Your task to perform on an android device: Go to Yahoo.com Image 0: 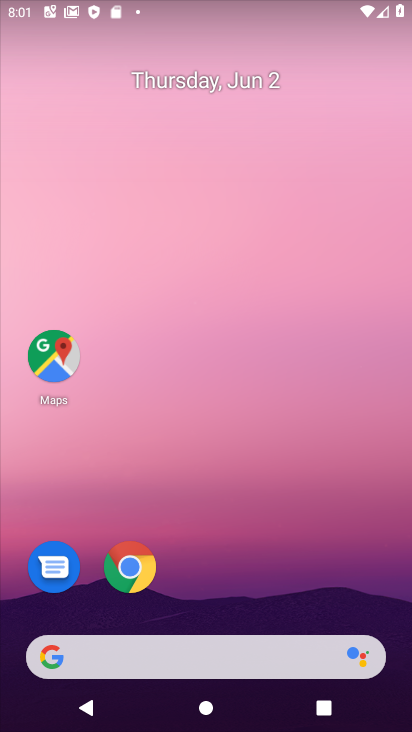
Step 0: click (127, 566)
Your task to perform on an android device: Go to Yahoo.com Image 1: 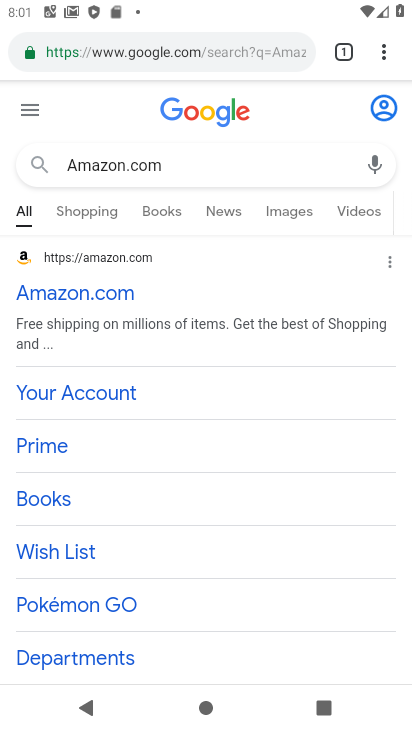
Step 1: click (236, 47)
Your task to perform on an android device: Go to Yahoo.com Image 2: 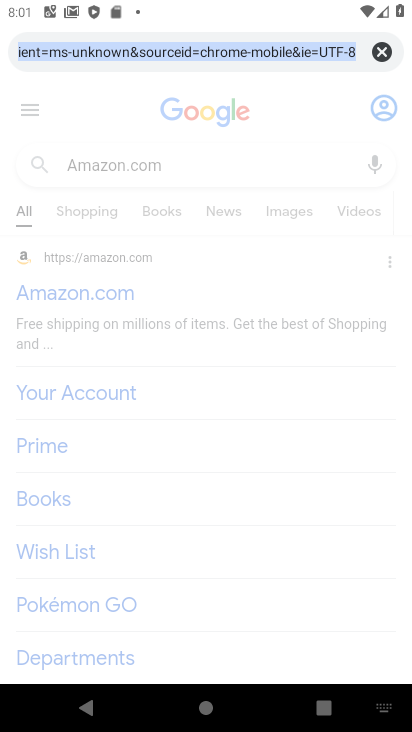
Step 2: click (386, 48)
Your task to perform on an android device: Go to Yahoo.com Image 3: 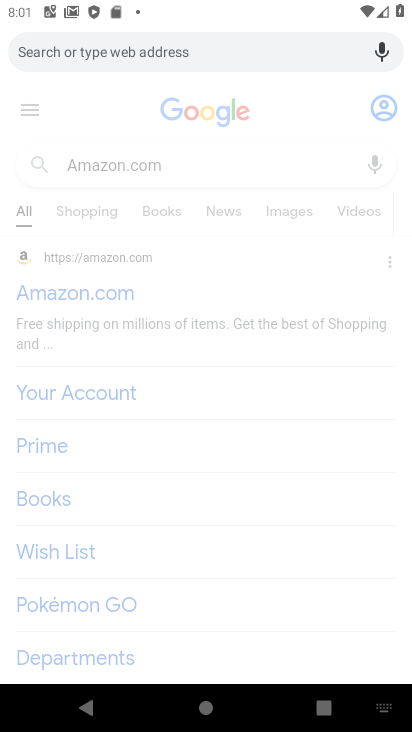
Step 3: type "Yahoo.com"
Your task to perform on an android device: Go to Yahoo.com Image 4: 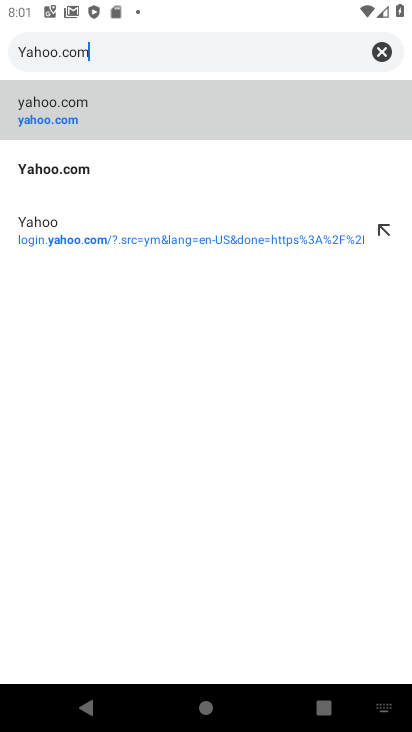
Step 4: type ""
Your task to perform on an android device: Go to Yahoo.com Image 5: 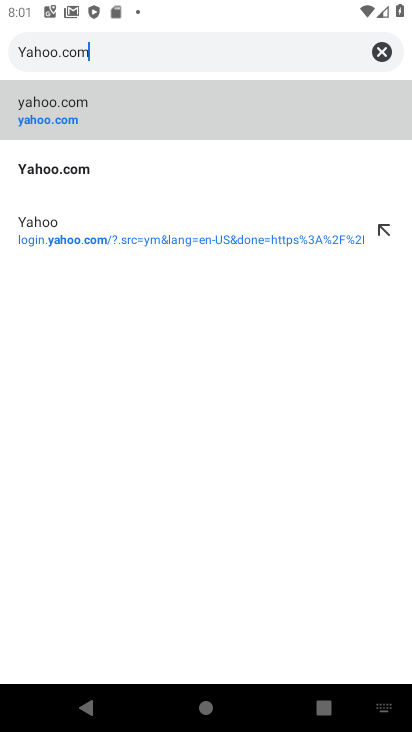
Step 5: click (72, 171)
Your task to perform on an android device: Go to Yahoo.com Image 6: 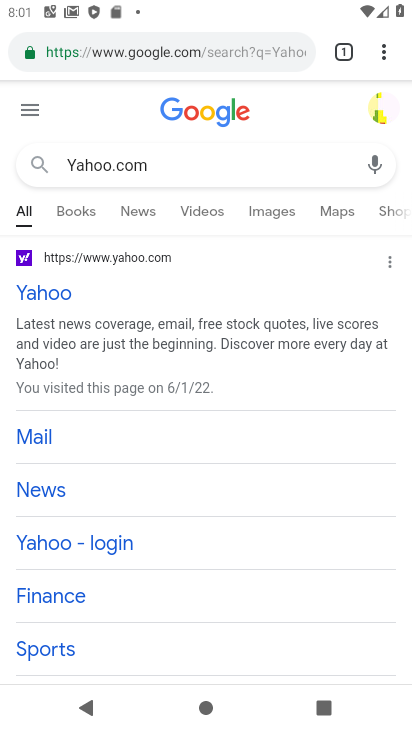
Step 6: click (53, 299)
Your task to perform on an android device: Go to Yahoo.com Image 7: 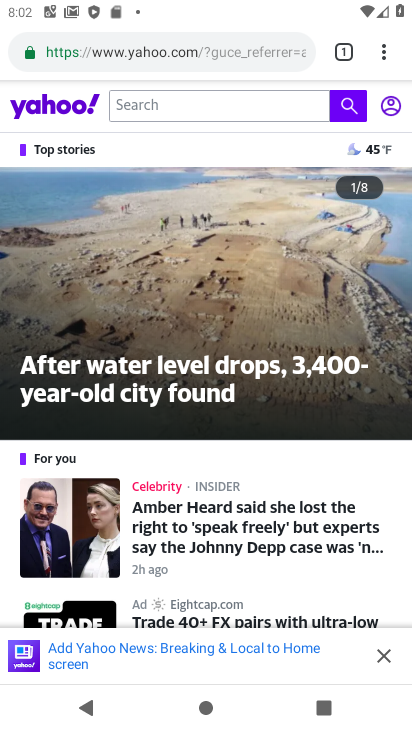
Step 7: task complete